Your task to perform on an android device: check the backup settings in the google photos Image 0: 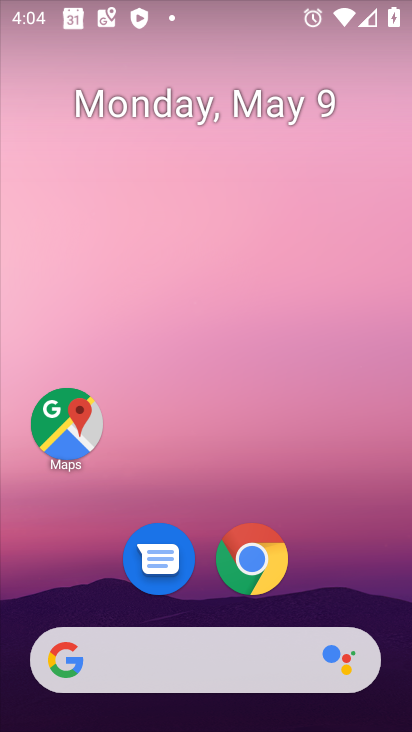
Step 0: drag from (201, 714) to (201, 94)
Your task to perform on an android device: check the backup settings in the google photos Image 1: 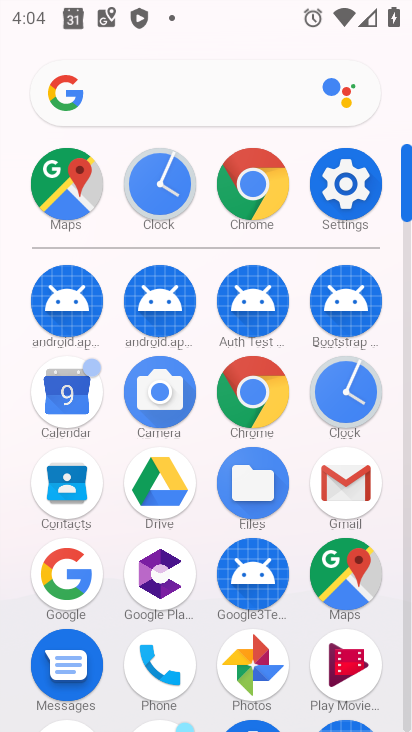
Step 1: click (252, 661)
Your task to perform on an android device: check the backup settings in the google photos Image 2: 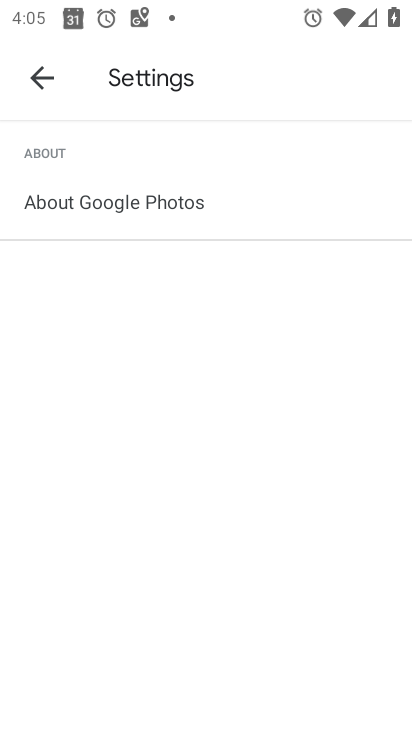
Step 2: click (35, 71)
Your task to perform on an android device: check the backup settings in the google photos Image 3: 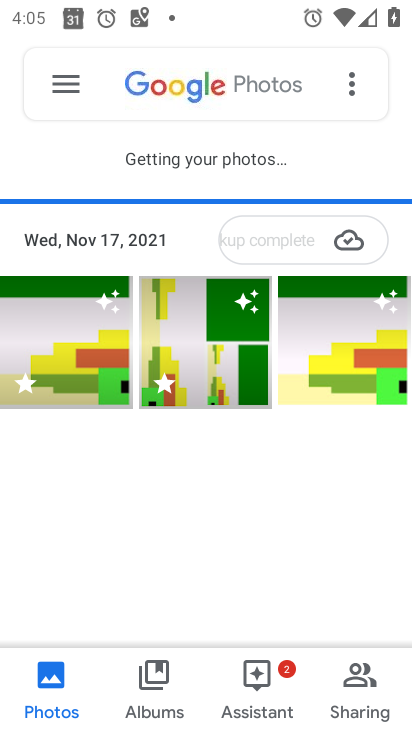
Step 3: click (52, 84)
Your task to perform on an android device: check the backup settings in the google photos Image 4: 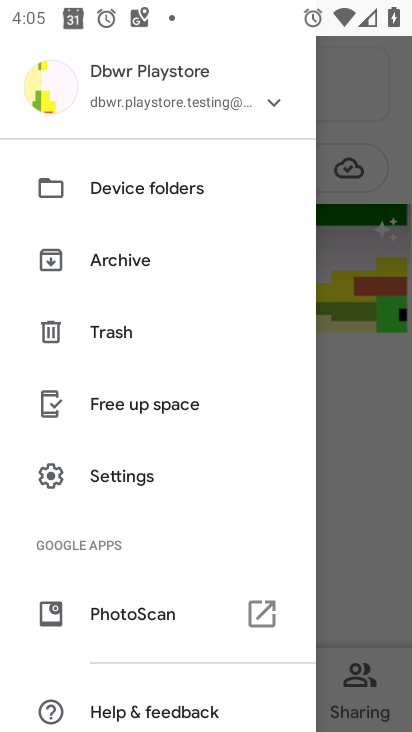
Step 4: click (112, 475)
Your task to perform on an android device: check the backup settings in the google photos Image 5: 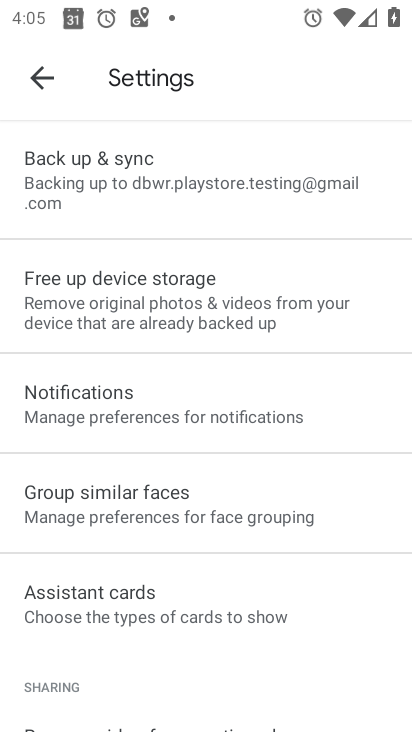
Step 5: click (109, 172)
Your task to perform on an android device: check the backup settings in the google photos Image 6: 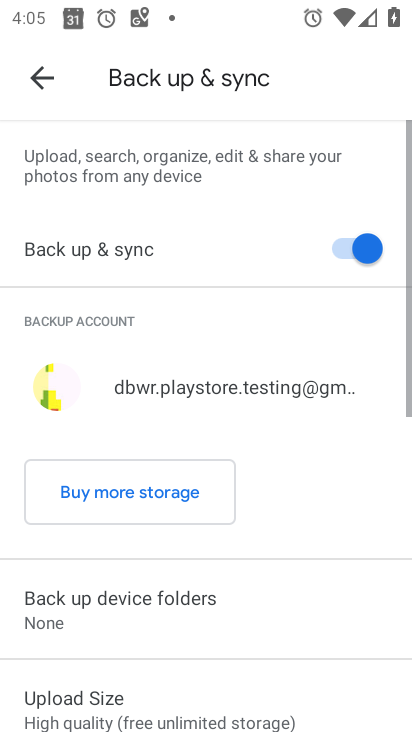
Step 6: task complete